Your task to perform on an android device: Go to Google Image 0: 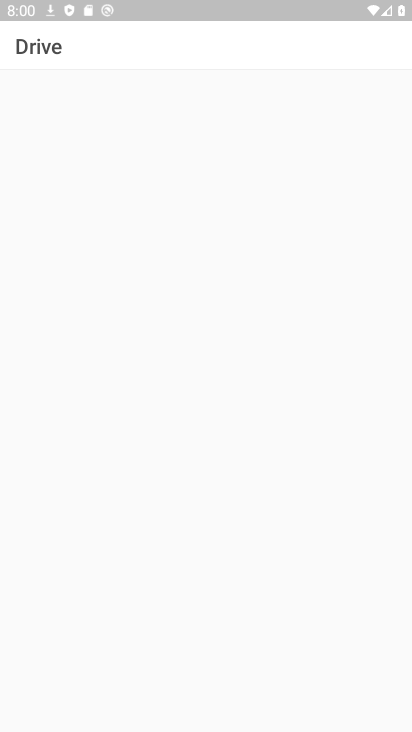
Step 0: press home button
Your task to perform on an android device: Go to Google Image 1: 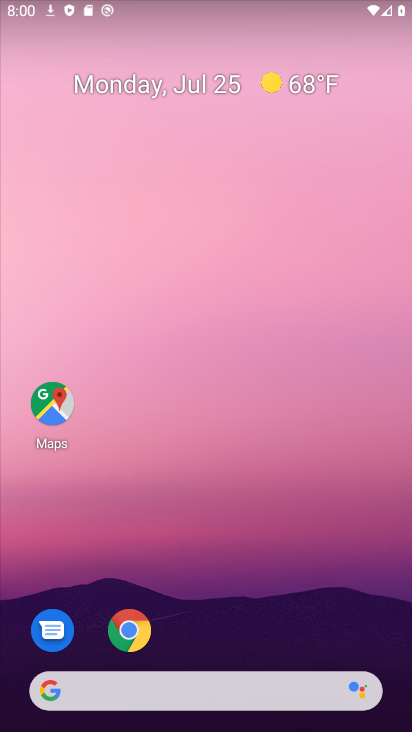
Step 1: drag from (232, 627) to (298, 120)
Your task to perform on an android device: Go to Google Image 2: 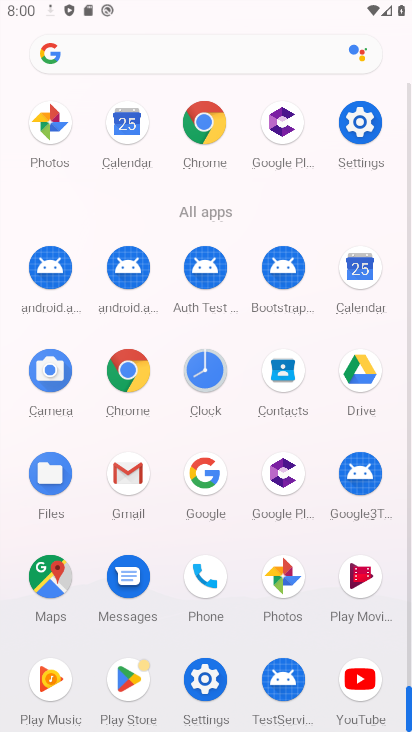
Step 2: click (204, 469)
Your task to perform on an android device: Go to Google Image 3: 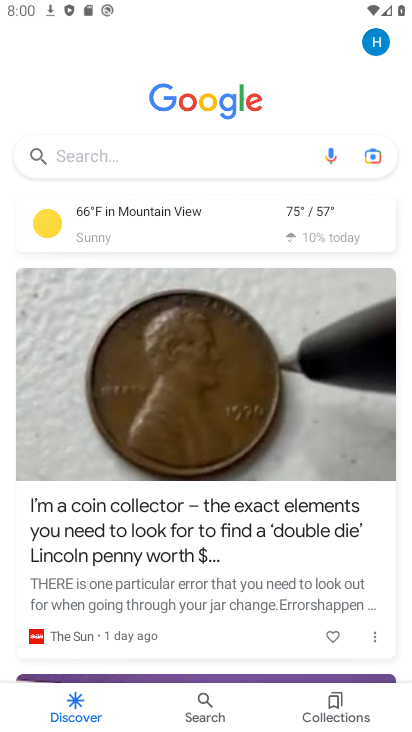
Step 3: task complete